Your task to perform on an android device: Go to Maps Image 0: 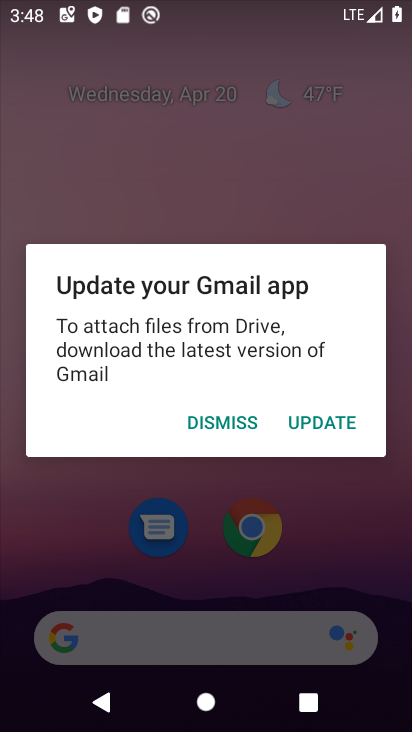
Step 0: press home button
Your task to perform on an android device: Go to Maps Image 1: 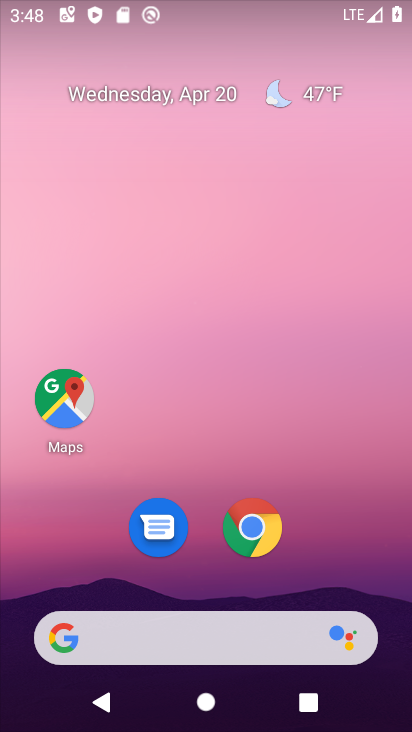
Step 1: click (62, 394)
Your task to perform on an android device: Go to Maps Image 2: 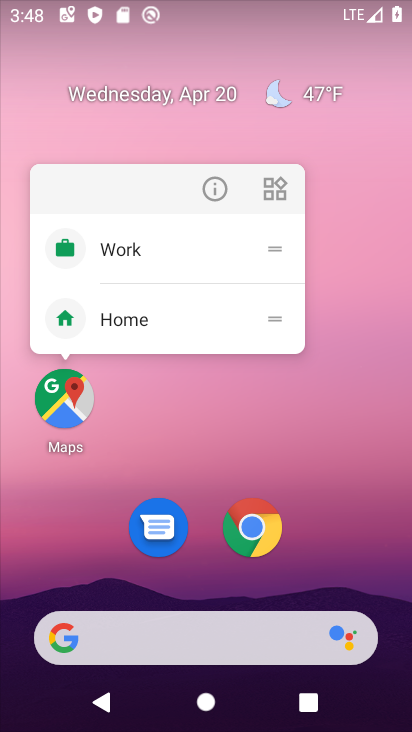
Step 2: click (74, 409)
Your task to perform on an android device: Go to Maps Image 3: 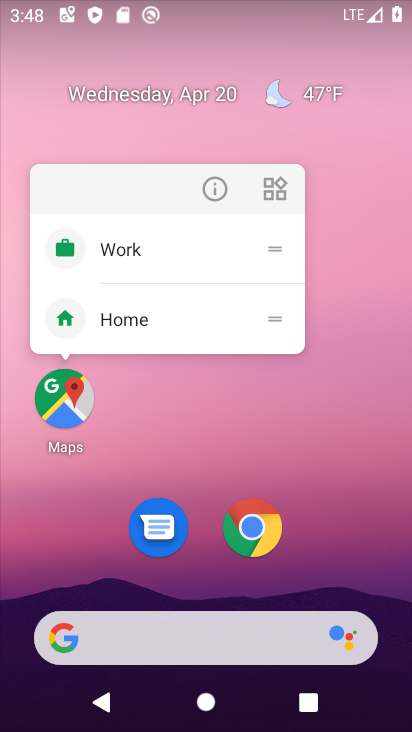
Step 3: click (53, 397)
Your task to perform on an android device: Go to Maps Image 4: 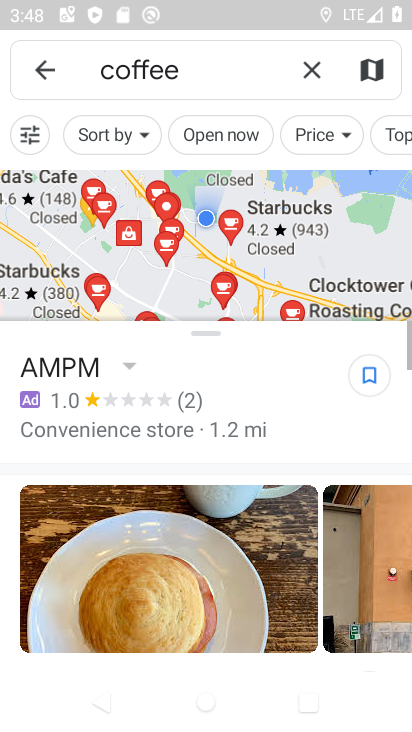
Step 4: task complete